Your task to perform on an android device: Go to location settings Image 0: 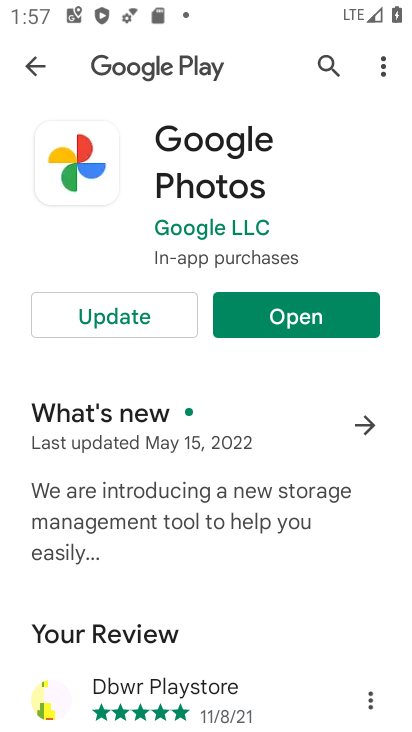
Step 0: press home button
Your task to perform on an android device: Go to location settings Image 1: 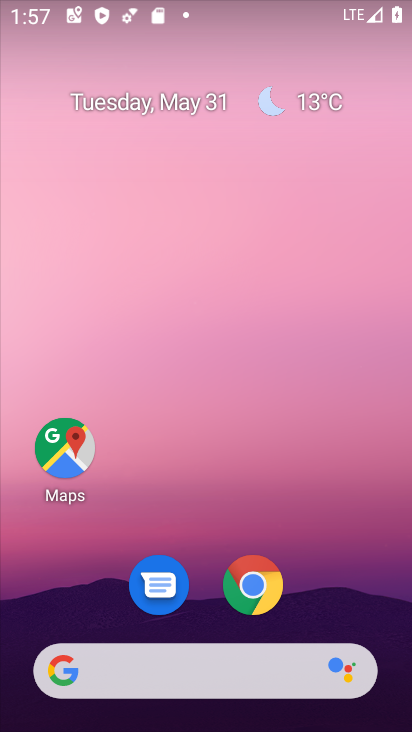
Step 1: drag from (218, 514) to (247, 46)
Your task to perform on an android device: Go to location settings Image 2: 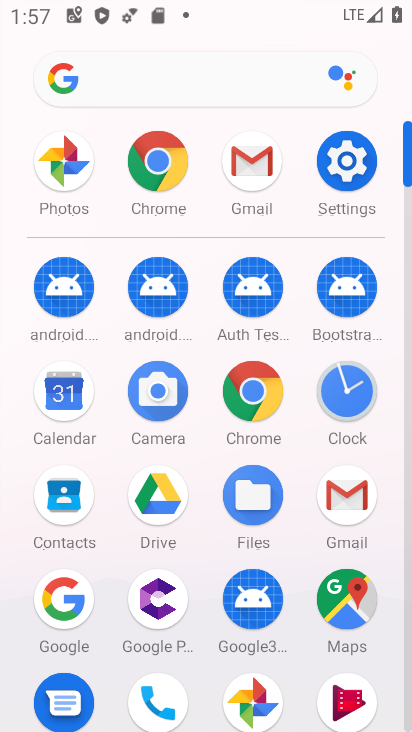
Step 2: click (334, 168)
Your task to perform on an android device: Go to location settings Image 3: 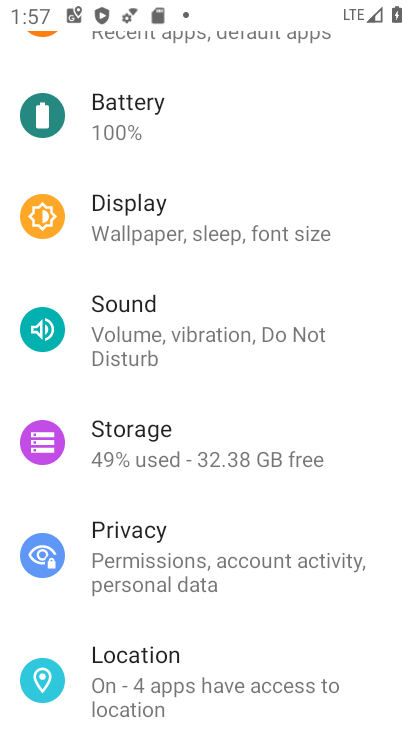
Step 3: click (229, 664)
Your task to perform on an android device: Go to location settings Image 4: 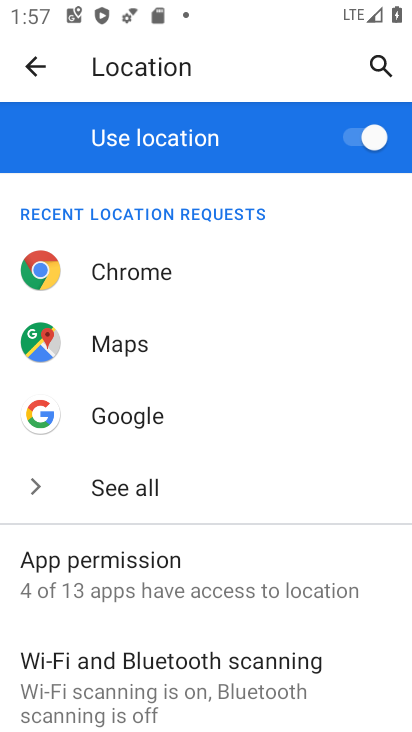
Step 4: task complete